Your task to perform on an android device: open app "Firefox Browser" Image 0: 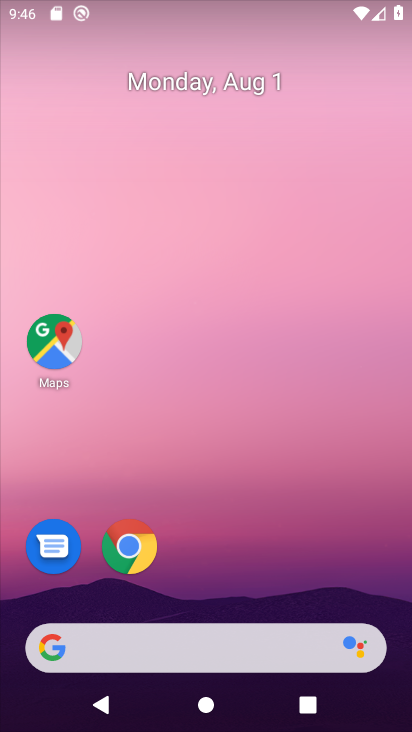
Step 0: press home button
Your task to perform on an android device: open app "Firefox Browser" Image 1: 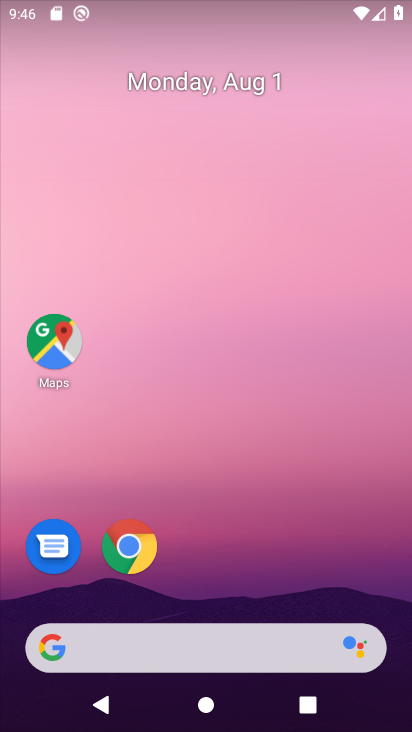
Step 1: drag from (210, 601) to (254, 10)
Your task to perform on an android device: open app "Firefox Browser" Image 2: 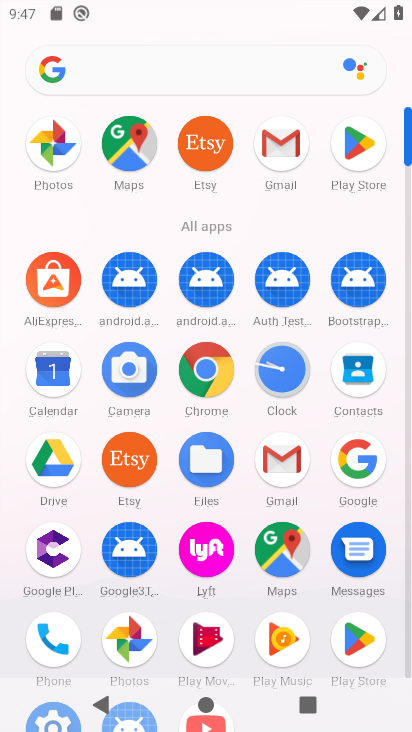
Step 2: click (351, 138)
Your task to perform on an android device: open app "Firefox Browser" Image 3: 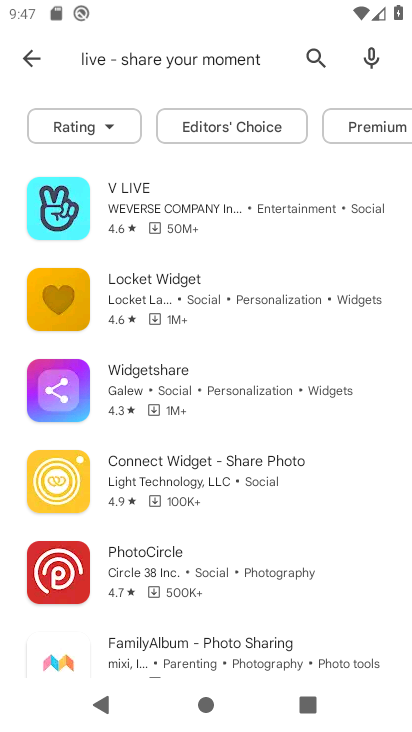
Step 3: click (307, 61)
Your task to perform on an android device: open app "Firefox Browser" Image 4: 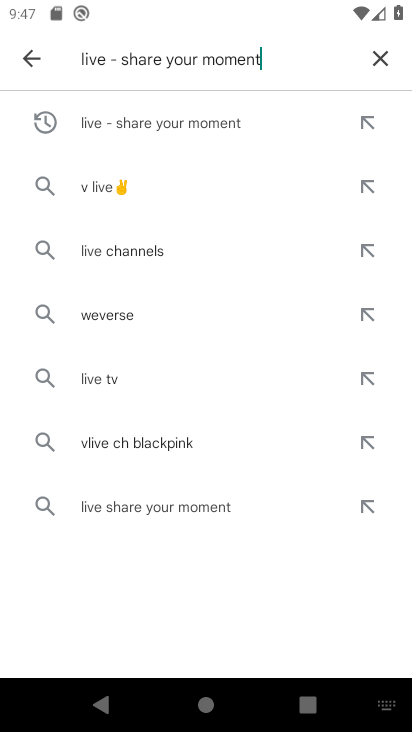
Step 4: click (379, 58)
Your task to perform on an android device: open app "Firefox Browser" Image 5: 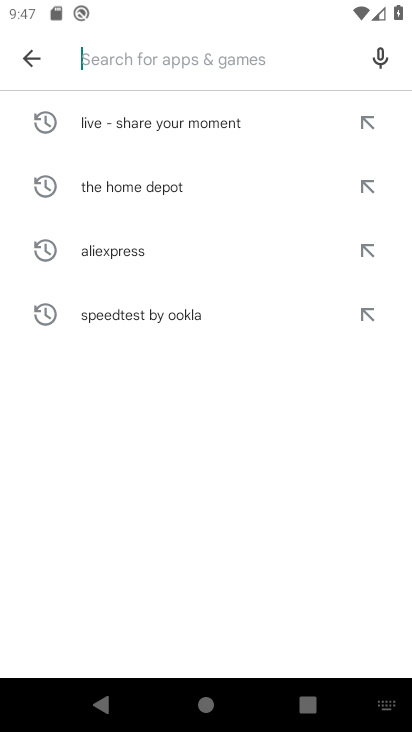
Step 5: type "firefox browser"
Your task to perform on an android device: open app "Firefox Browser" Image 6: 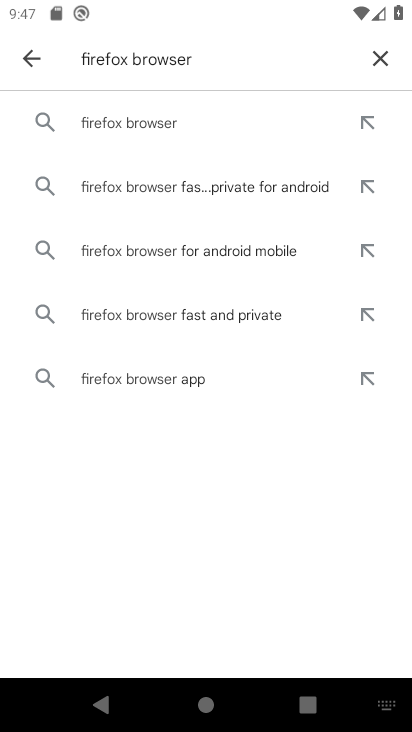
Step 6: click (185, 119)
Your task to perform on an android device: open app "Firefox Browser" Image 7: 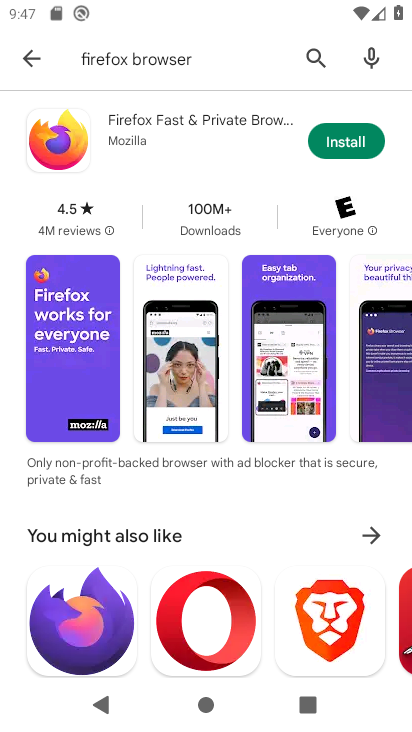
Step 7: click (345, 138)
Your task to perform on an android device: open app "Firefox Browser" Image 8: 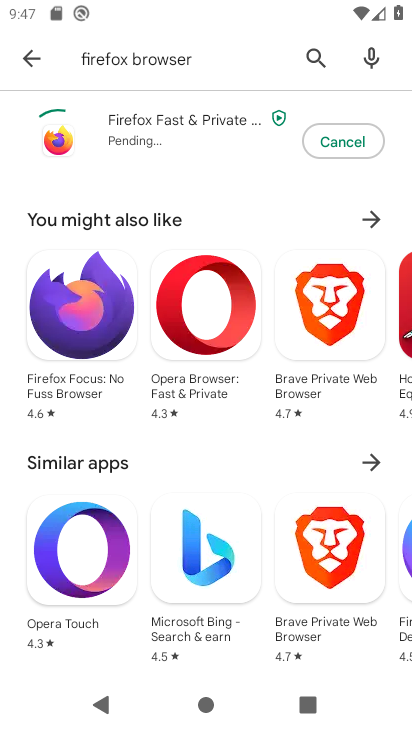
Step 8: task complete